Your task to perform on an android device: check android version Image 0: 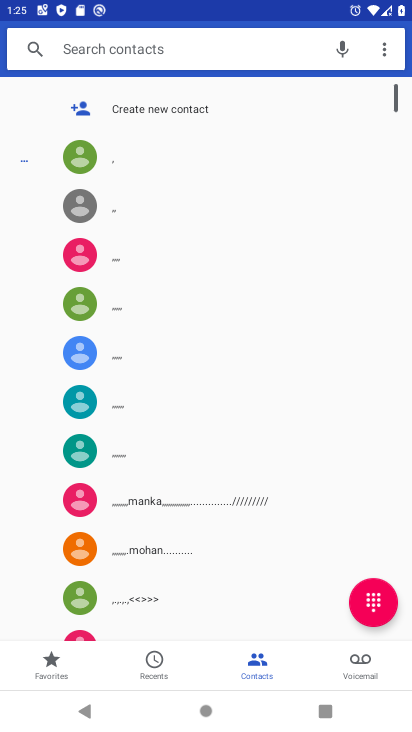
Step 0: press home button
Your task to perform on an android device: check android version Image 1: 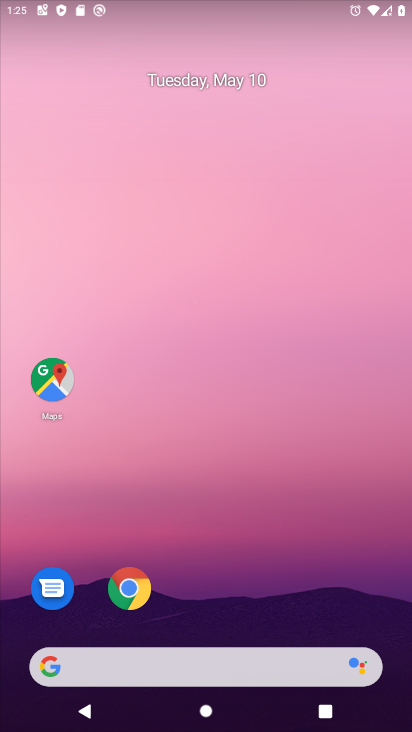
Step 1: drag from (239, 613) to (282, 236)
Your task to perform on an android device: check android version Image 2: 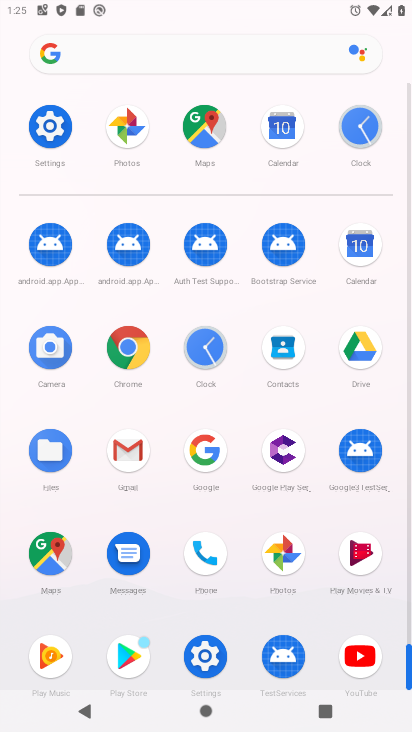
Step 2: click (60, 122)
Your task to perform on an android device: check android version Image 3: 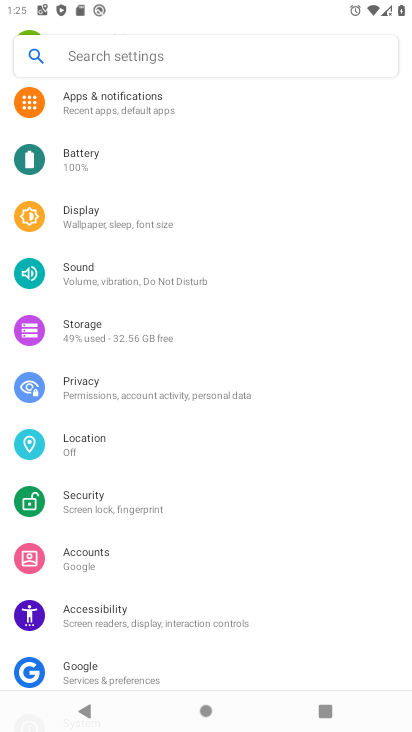
Step 3: drag from (141, 635) to (247, 128)
Your task to perform on an android device: check android version Image 4: 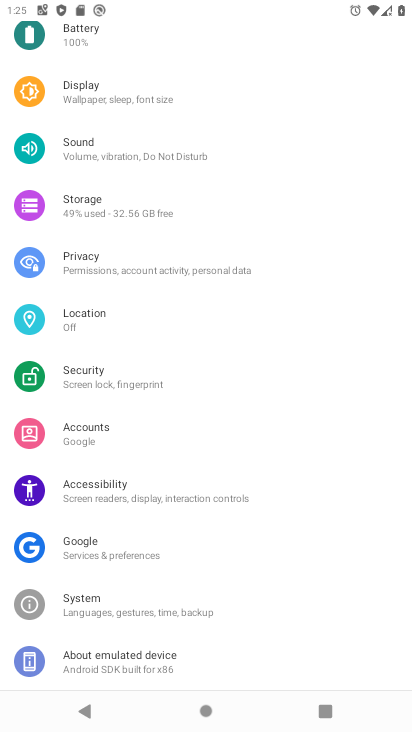
Step 4: click (155, 652)
Your task to perform on an android device: check android version Image 5: 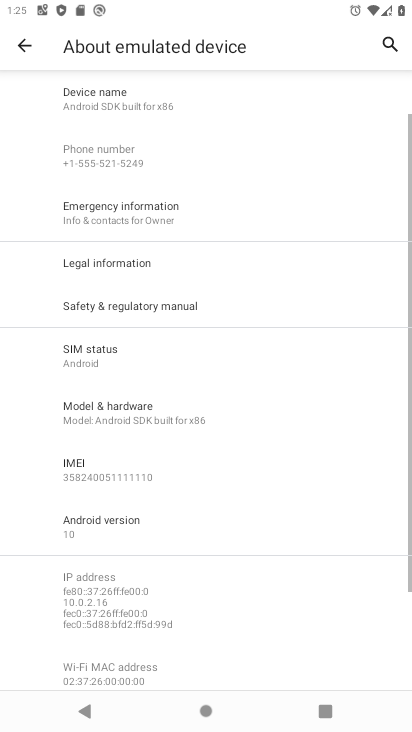
Step 5: click (168, 534)
Your task to perform on an android device: check android version Image 6: 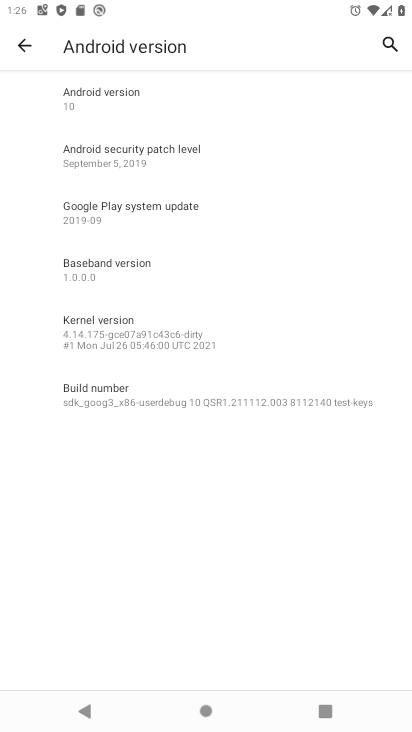
Step 6: task complete